Your task to perform on an android device: Go to settings Image 0: 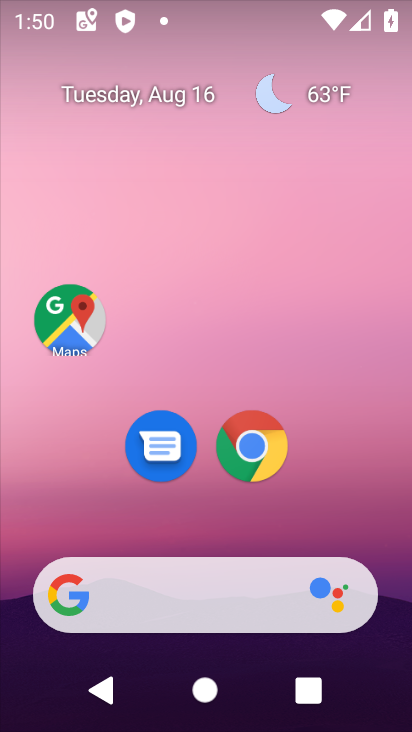
Step 0: drag from (202, 537) to (222, 50)
Your task to perform on an android device: Go to settings Image 1: 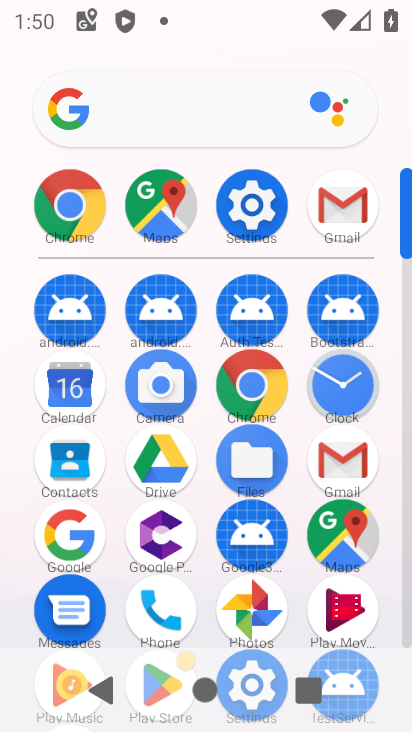
Step 1: click (248, 200)
Your task to perform on an android device: Go to settings Image 2: 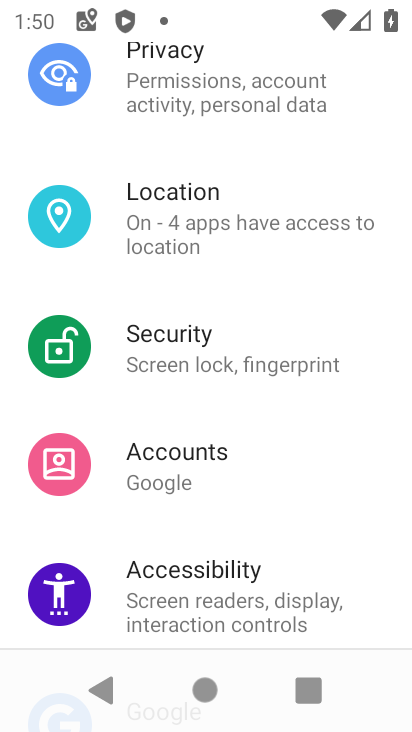
Step 2: task complete